Your task to perform on an android device: see creations saved in the google photos Image 0: 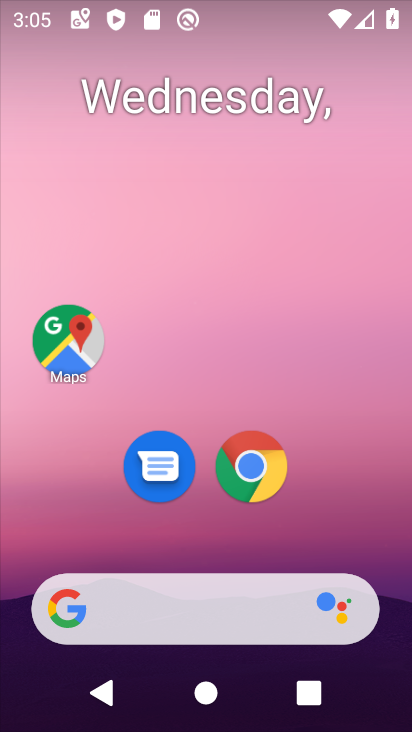
Step 0: drag from (231, 568) to (274, 16)
Your task to perform on an android device: see creations saved in the google photos Image 1: 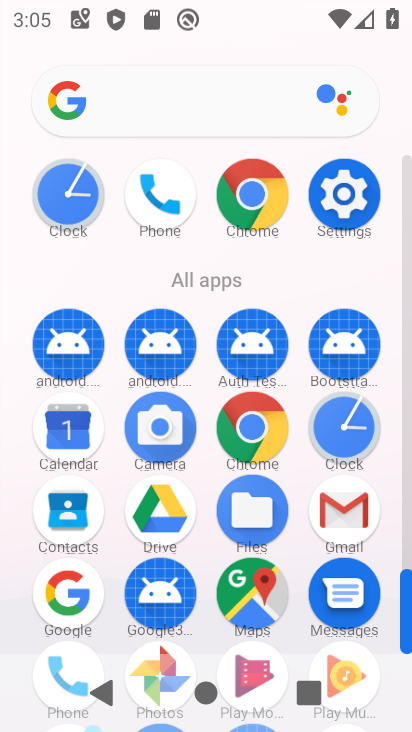
Step 1: click (165, 655)
Your task to perform on an android device: see creations saved in the google photos Image 2: 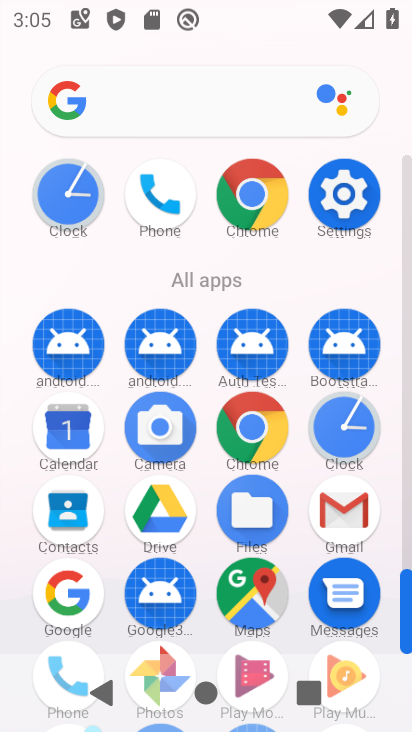
Step 2: drag from (109, 626) to (106, 382)
Your task to perform on an android device: see creations saved in the google photos Image 3: 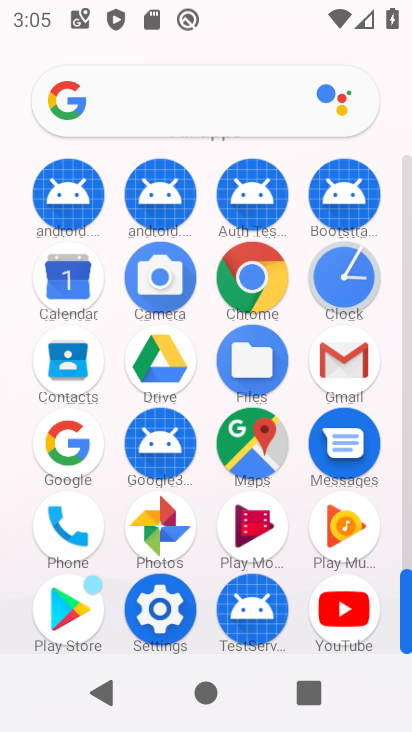
Step 3: click (148, 517)
Your task to perform on an android device: see creations saved in the google photos Image 4: 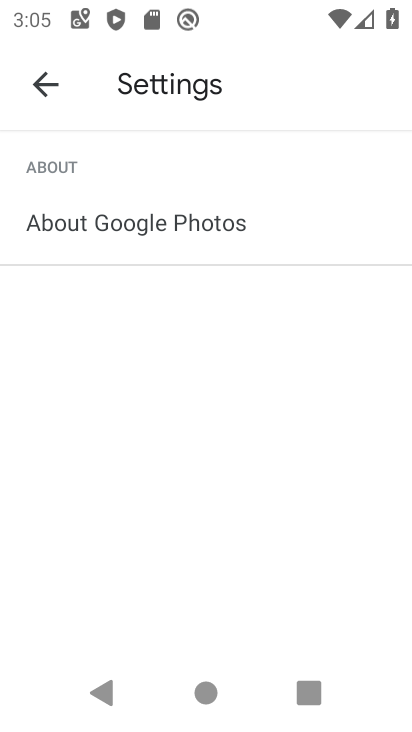
Step 4: click (49, 82)
Your task to perform on an android device: see creations saved in the google photos Image 5: 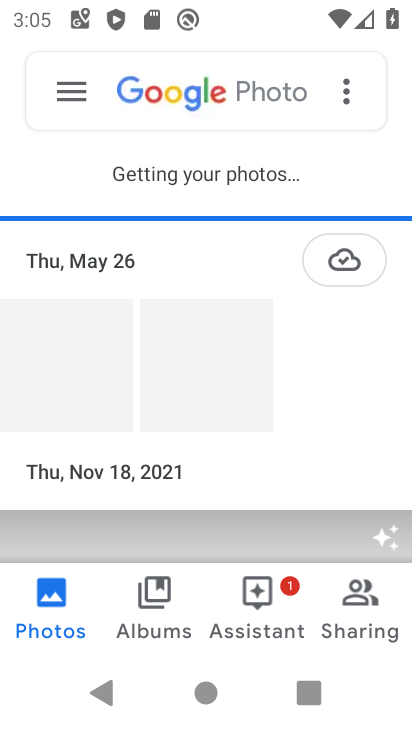
Step 5: click (204, 103)
Your task to perform on an android device: see creations saved in the google photos Image 6: 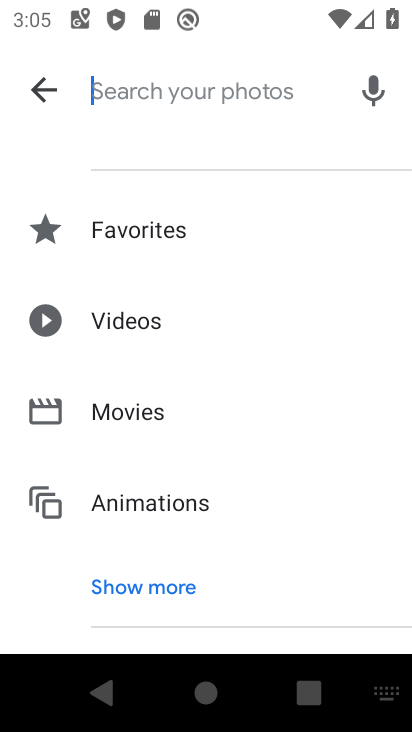
Step 6: click (119, 580)
Your task to perform on an android device: see creations saved in the google photos Image 7: 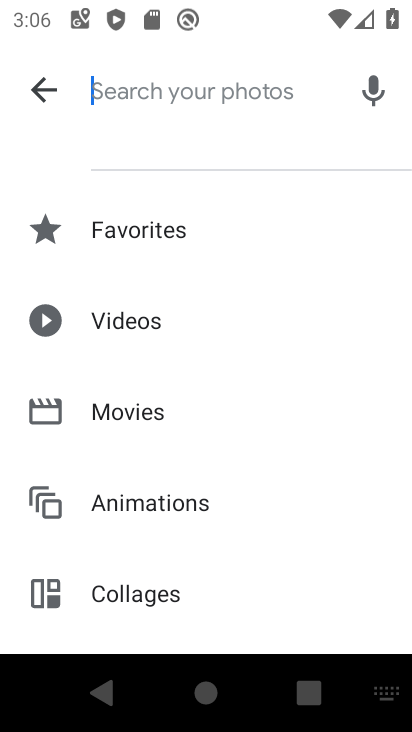
Step 7: drag from (142, 555) to (97, 4)
Your task to perform on an android device: see creations saved in the google photos Image 8: 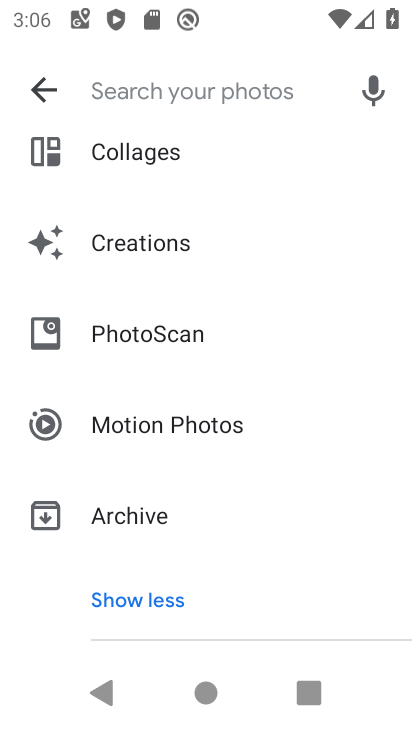
Step 8: click (147, 237)
Your task to perform on an android device: see creations saved in the google photos Image 9: 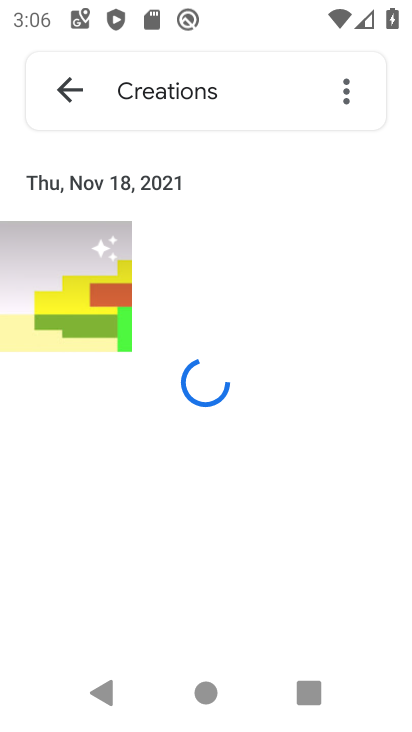
Step 9: task complete